Your task to perform on an android device: set an alarm Image 0: 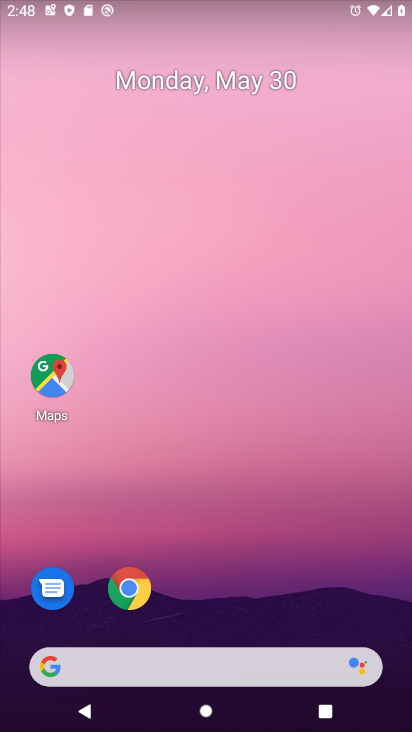
Step 0: drag from (331, 640) to (300, 109)
Your task to perform on an android device: set an alarm Image 1: 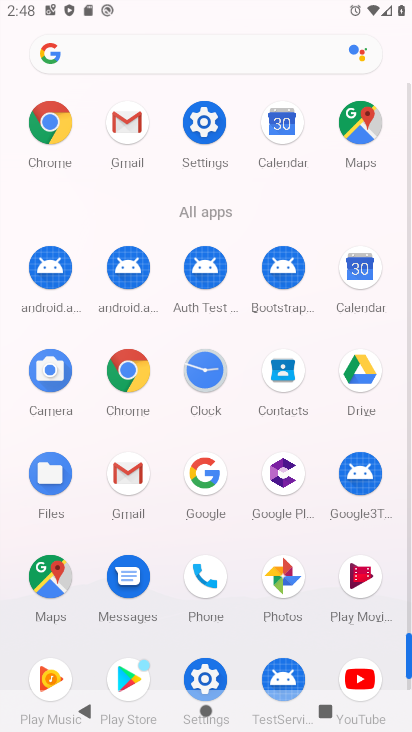
Step 1: click (209, 383)
Your task to perform on an android device: set an alarm Image 2: 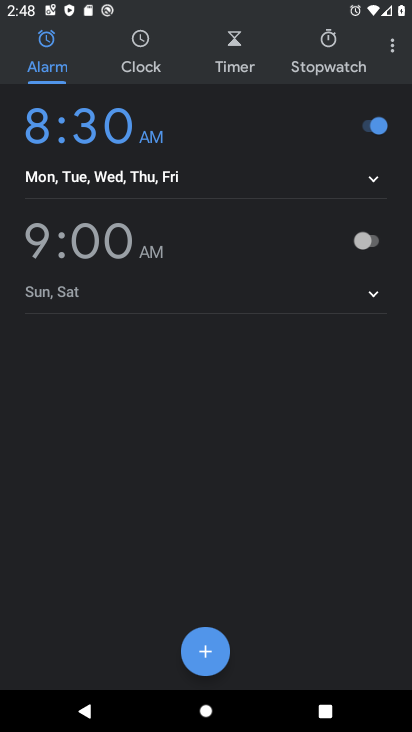
Step 2: click (372, 235)
Your task to perform on an android device: set an alarm Image 3: 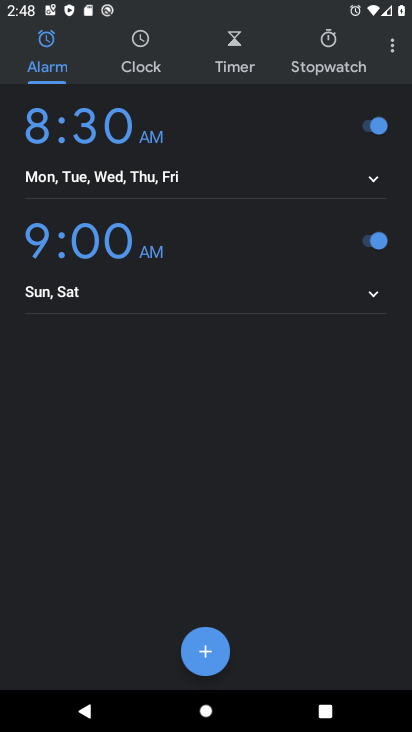
Step 3: task complete